Your task to perform on an android device: Go to eBay Image 0: 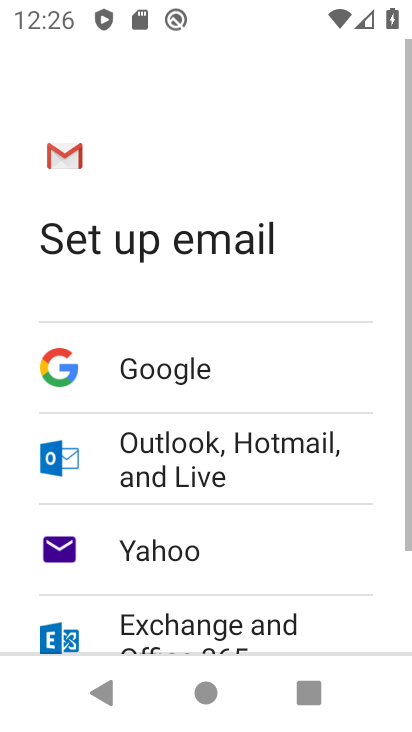
Step 0: press home button
Your task to perform on an android device: Go to eBay Image 1: 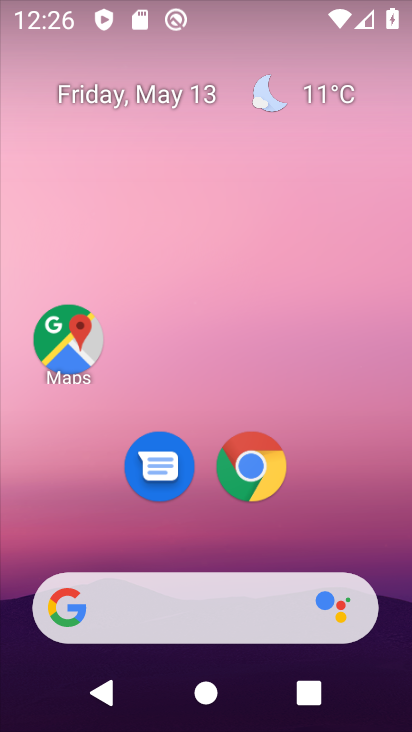
Step 1: click (167, 637)
Your task to perform on an android device: Go to eBay Image 2: 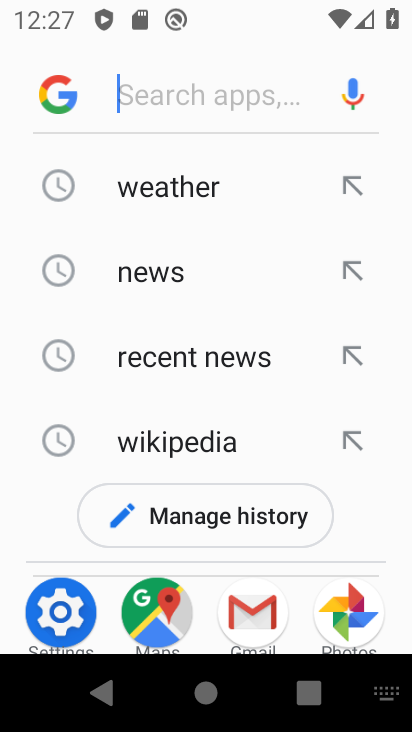
Step 2: type "ebay"
Your task to perform on an android device: Go to eBay Image 3: 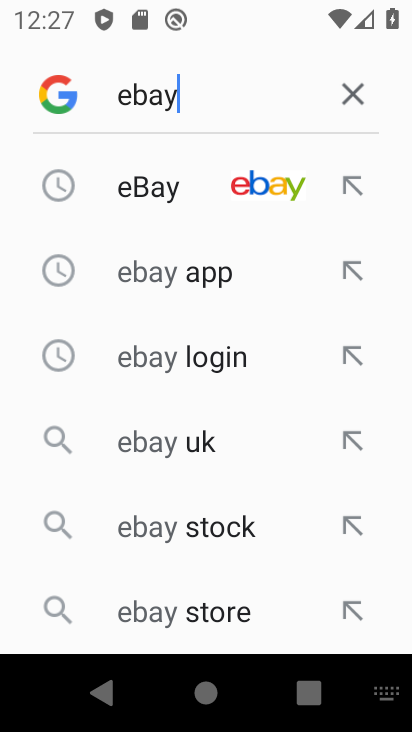
Step 3: click (174, 172)
Your task to perform on an android device: Go to eBay Image 4: 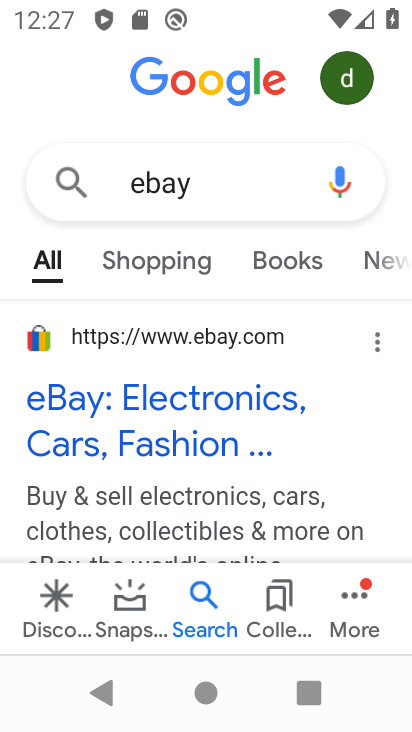
Step 4: click (124, 387)
Your task to perform on an android device: Go to eBay Image 5: 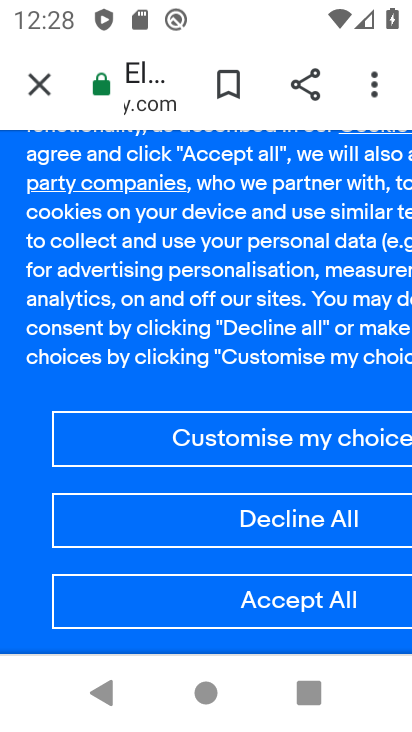
Step 5: task complete